Your task to perform on an android device: change timer sound Image 0: 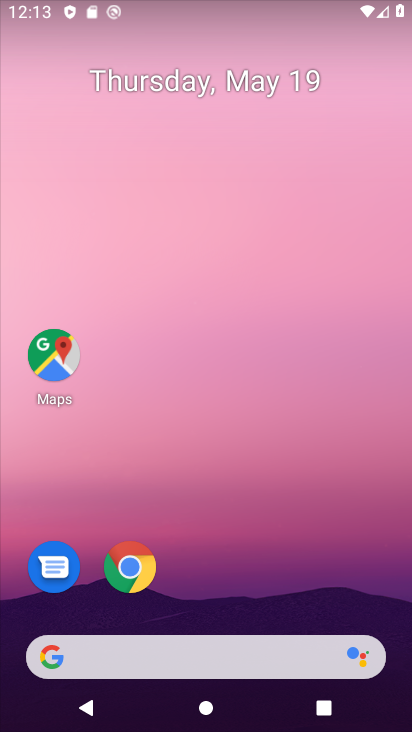
Step 0: drag from (250, 530) to (296, 35)
Your task to perform on an android device: change timer sound Image 1: 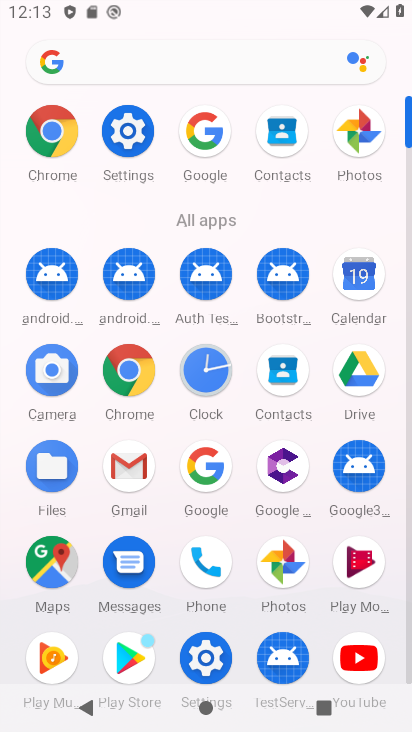
Step 1: click (207, 361)
Your task to perform on an android device: change timer sound Image 2: 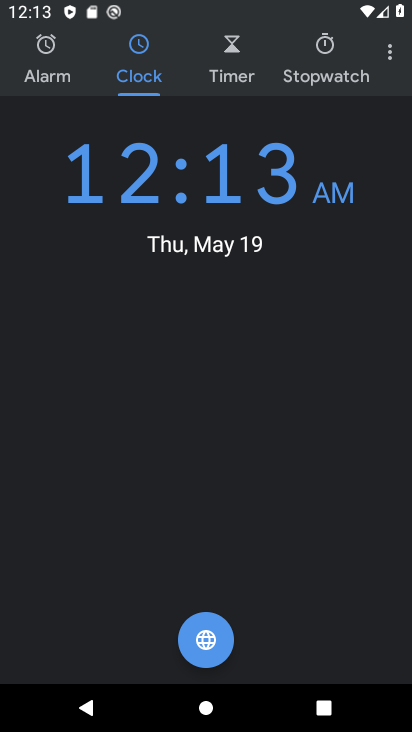
Step 2: click (224, 53)
Your task to perform on an android device: change timer sound Image 3: 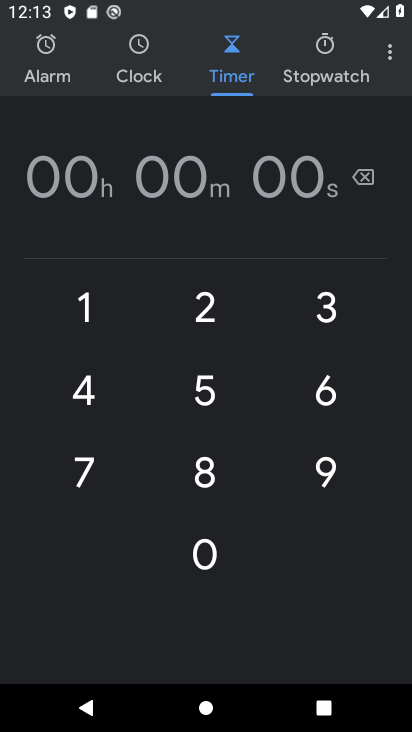
Step 3: click (392, 52)
Your task to perform on an android device: change timer sound Image 4: 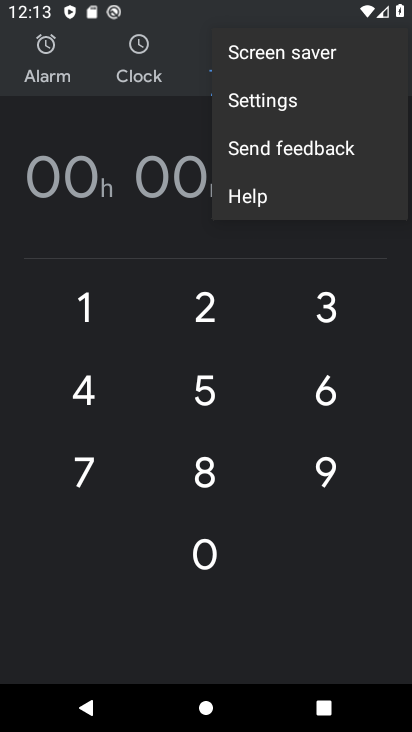
Step 4: click (328, 100)
Your task to perform on an android device: change timer sound Image 5: 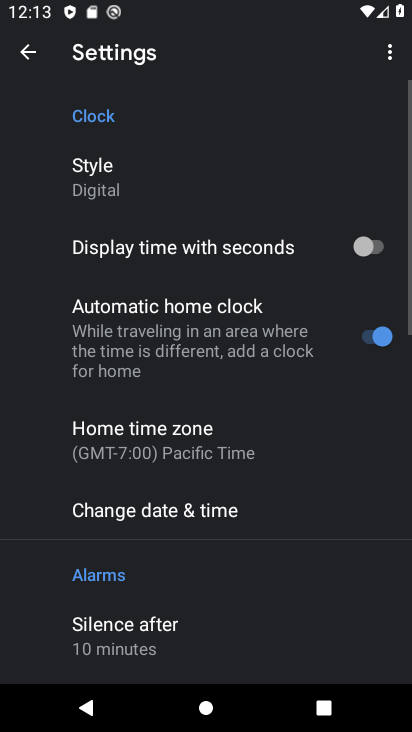
Step 5: drag from (248, 452) to (255, 58)
Your task to perform on an android device: change timer sound Image 6: 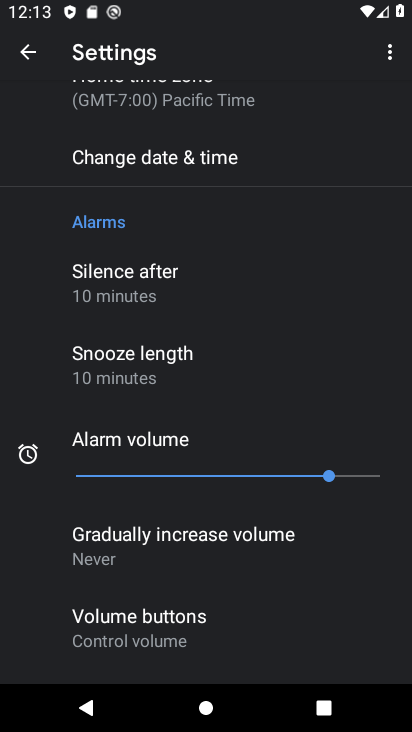
Step 6: drag from (259, 578) to (282, 98)
Your task to perform on an android device: change timer sound Image 7: 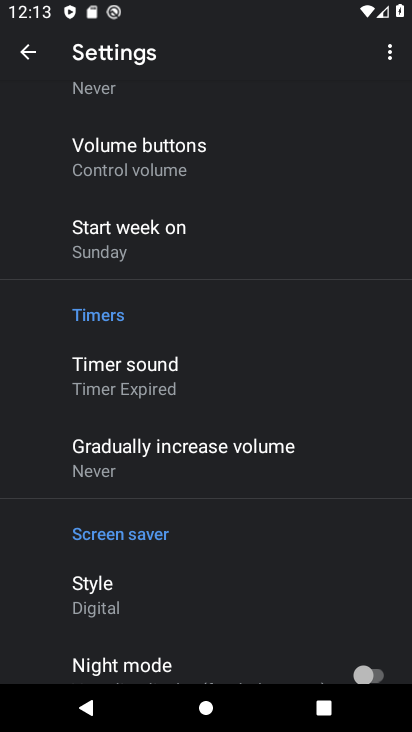
Step 7: click (183, 378)
Your task to perform on an android device: change timer sound Image 8: 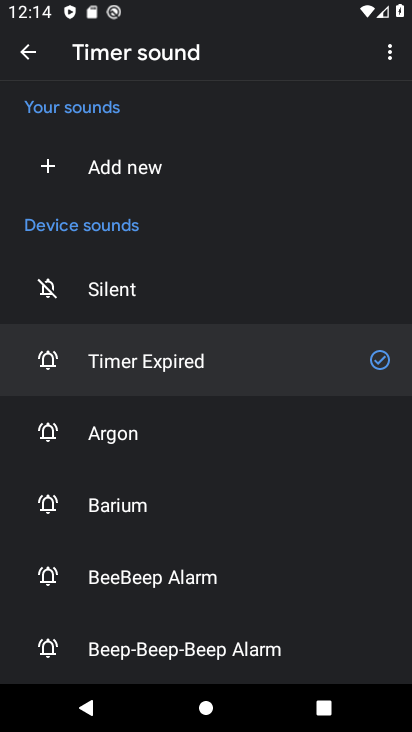
Step 8: click (194, 445)
Your task to perform on an android device: change timer sound Image 9: 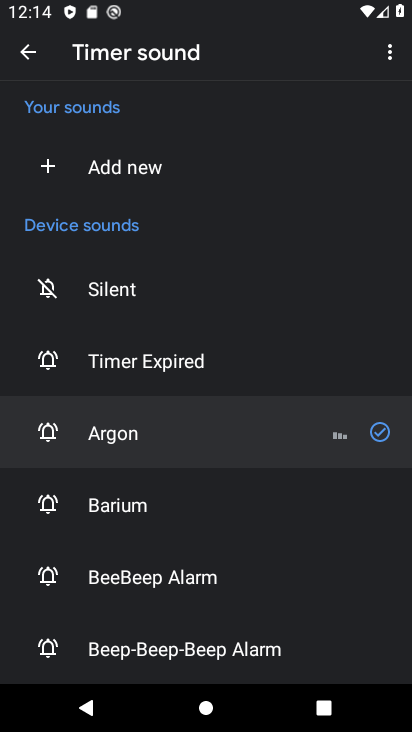
Step 9: task complete